Your task to perform on an android device: add a contact Image 0: 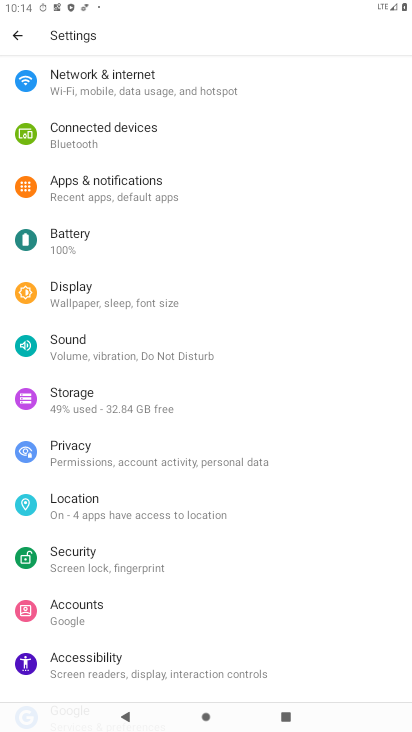
Step 0: press home button
Your task to perform on an android device: add a contact Image 1: 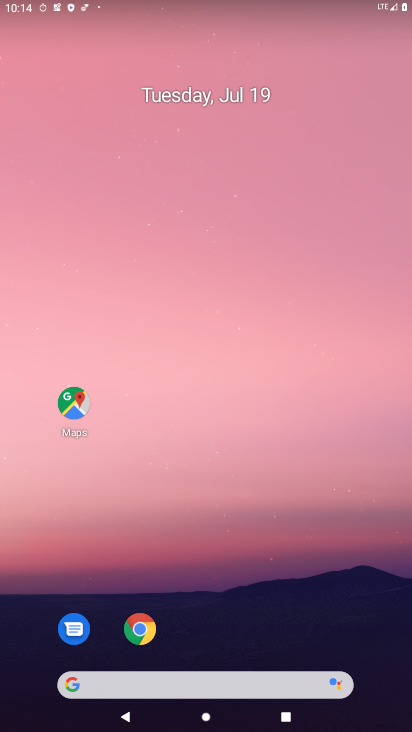
Step 1: drag from (224, 633) to (182, 0)
Your task to perform on an android device: add a contact Image 2: 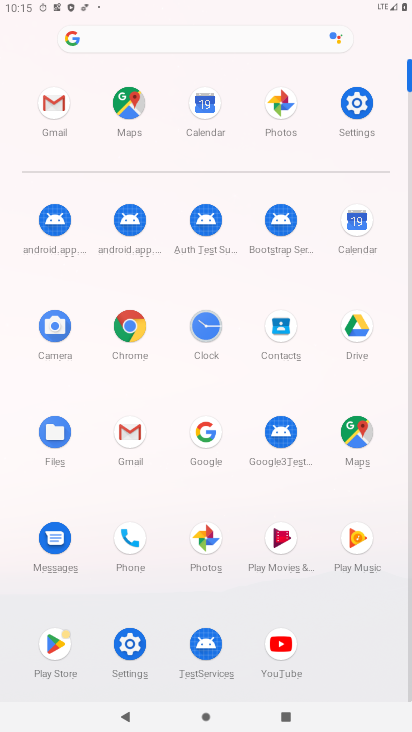
Step 2: click (270, 333)
Your task to perform on an android device: add a contact Image 3: 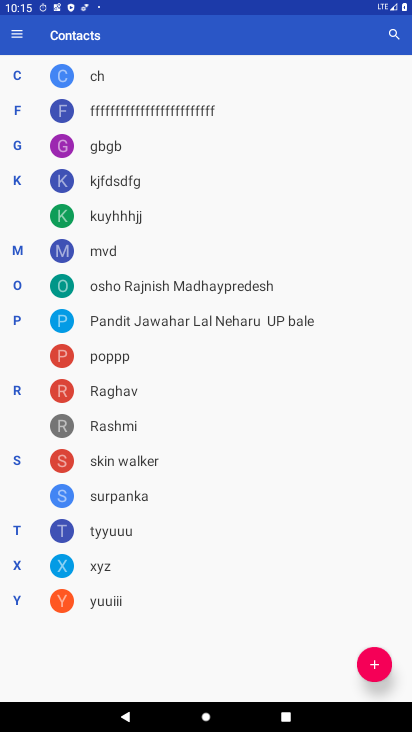
Step 3: click (370, 659)
Your task to perform on an android device: add a contact Image 4: 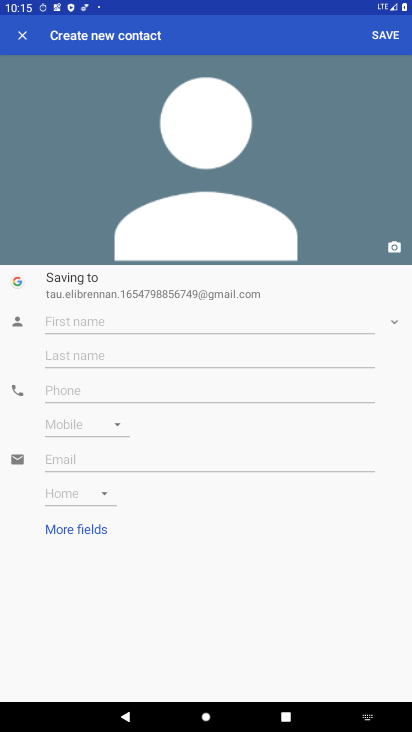
Step 4: click (155, 319)
Your task to perform on an android device: add a contact Image 5: 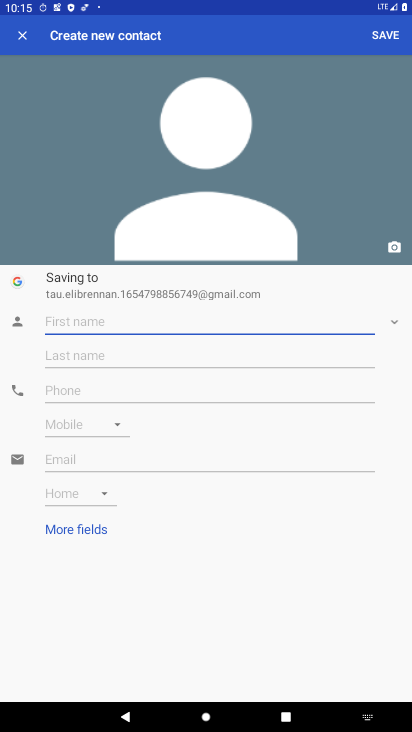
Step 5: type "blink"
Your task to perform on an android device: add a contact Image 6: 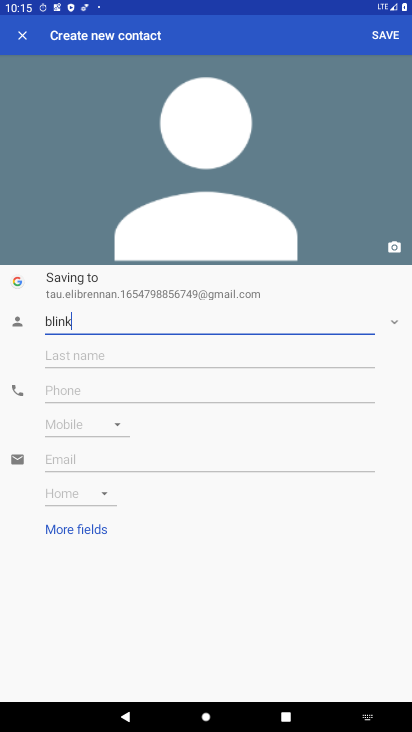
Step 6: click (382, 37)
Your task to perform on an android device: add a contact Image 7: 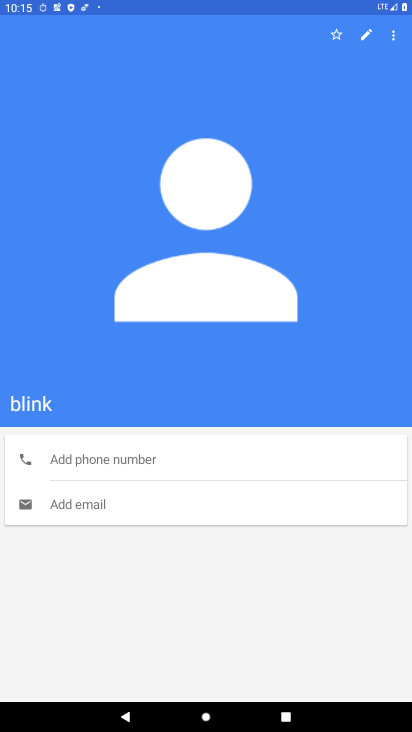
Step 7: task complete